Your task to perform on an android device: Show me productivity apps on the Play Store Image 0: 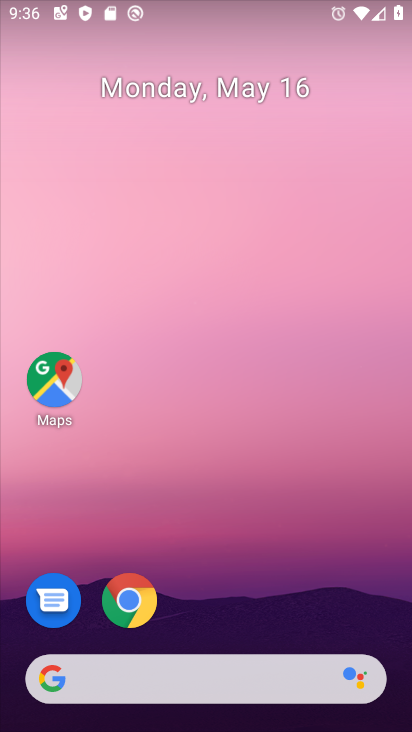
Step 0: drag from (211, 606) to (226, 463)
Your task to perform on an android device: Show me productivity apps on the Play Store Image 1: 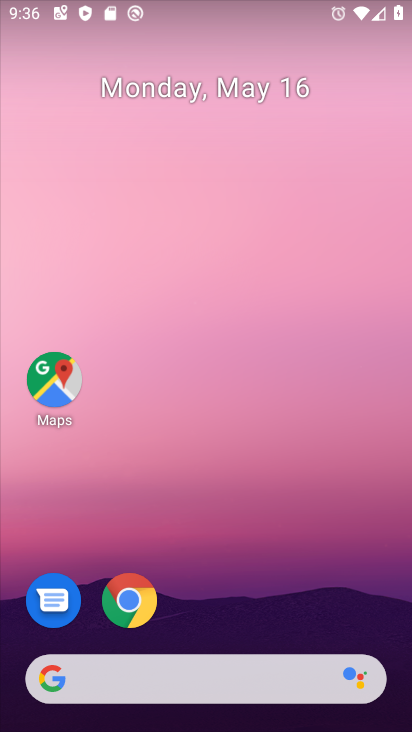
Step 1: drag from (204, 621) to (256, 101)
Your task to perform on an android device: Show me productivity apps on the Play Store Image 2: 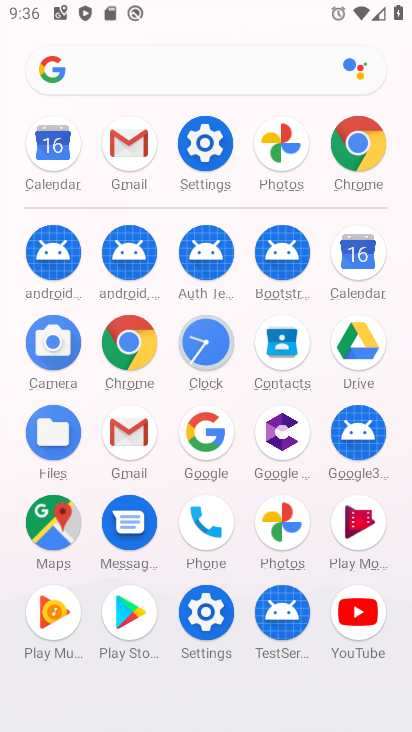
Step 2: click (133, 618)
Your task to perform on an android device: Show me productivity apps on the Play Store Image 3: 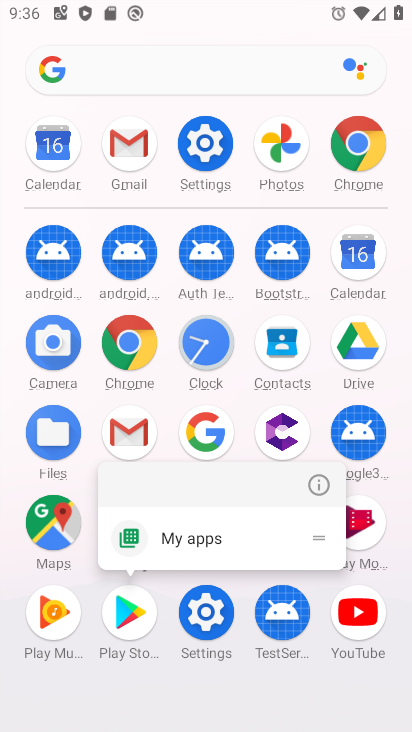
Step 3: click (313, 477)
Your task to perform on an android device: Show me productivity apps on the Play Store Image 4: 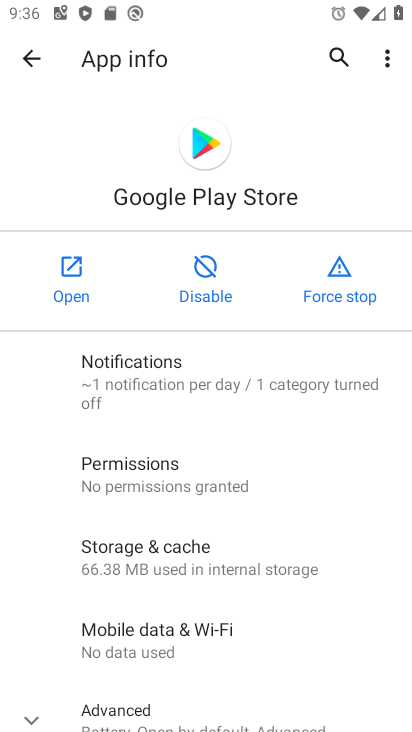
Step 4: click (83, 264)
Your task to perform on an android device: Show me productivity apps on the Play Store Image 5: 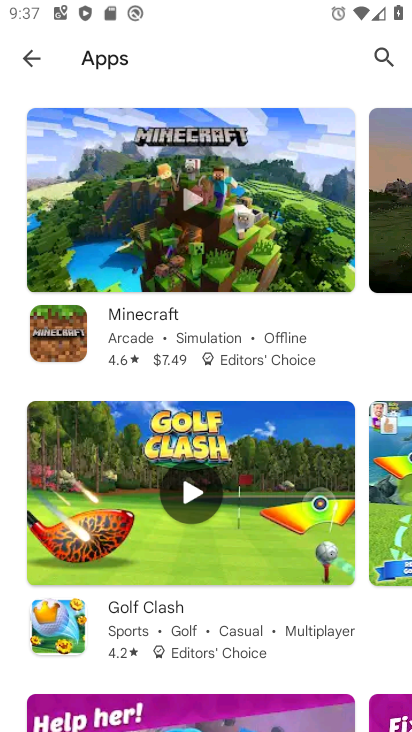
Step 5: drag from (233, 620) to (332, 173)
Your task to perform on an android device: Show me productivity apps on the Play Store Image 6: 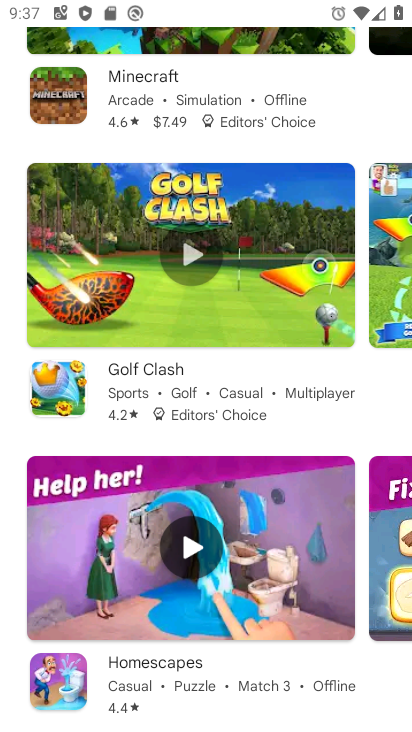
Step 6: drag from (282, 512) to (321, 37)
Your task to perform on an android device: Show me productivity apps on the Play Store Image 7: 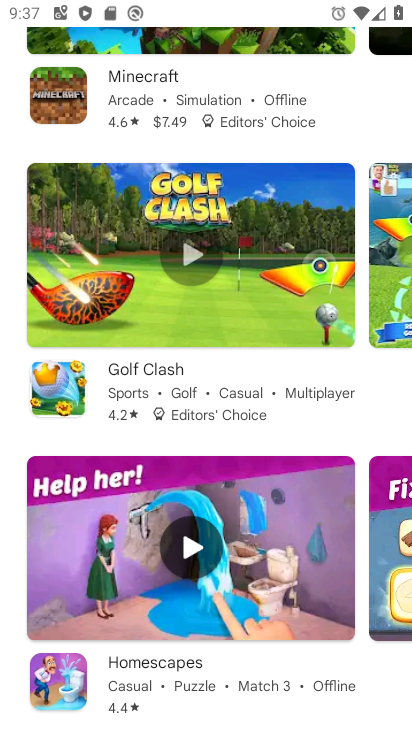
Step 7: drag from (193, 135) to (333, 730)
Your task to perform on an android device: Show me productivity apps on the Play Store Image 8: 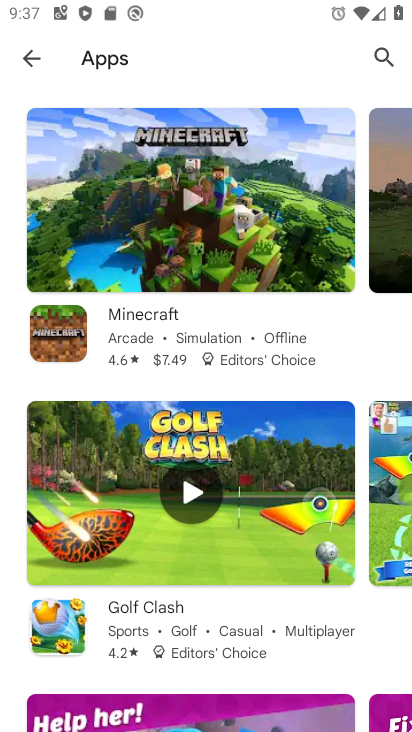
Step 8: click (35, 53)
Your task to perform on an android device: Show me productivity apps on the Play Store Image 9: 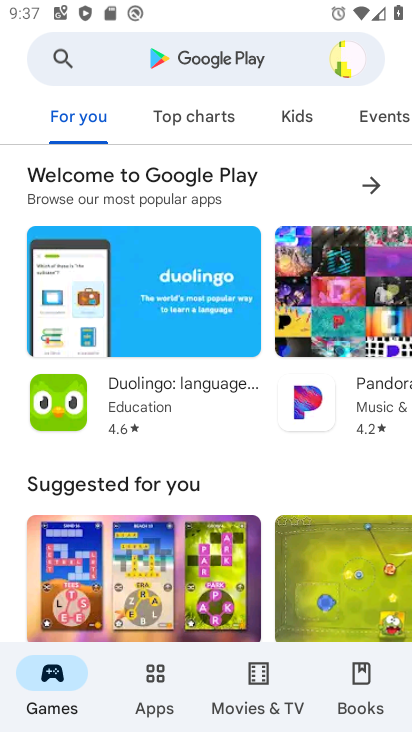
Step 9: task complete